Your task to perform on an android device: Add usb-a to the cart on bestbuy Image 0: 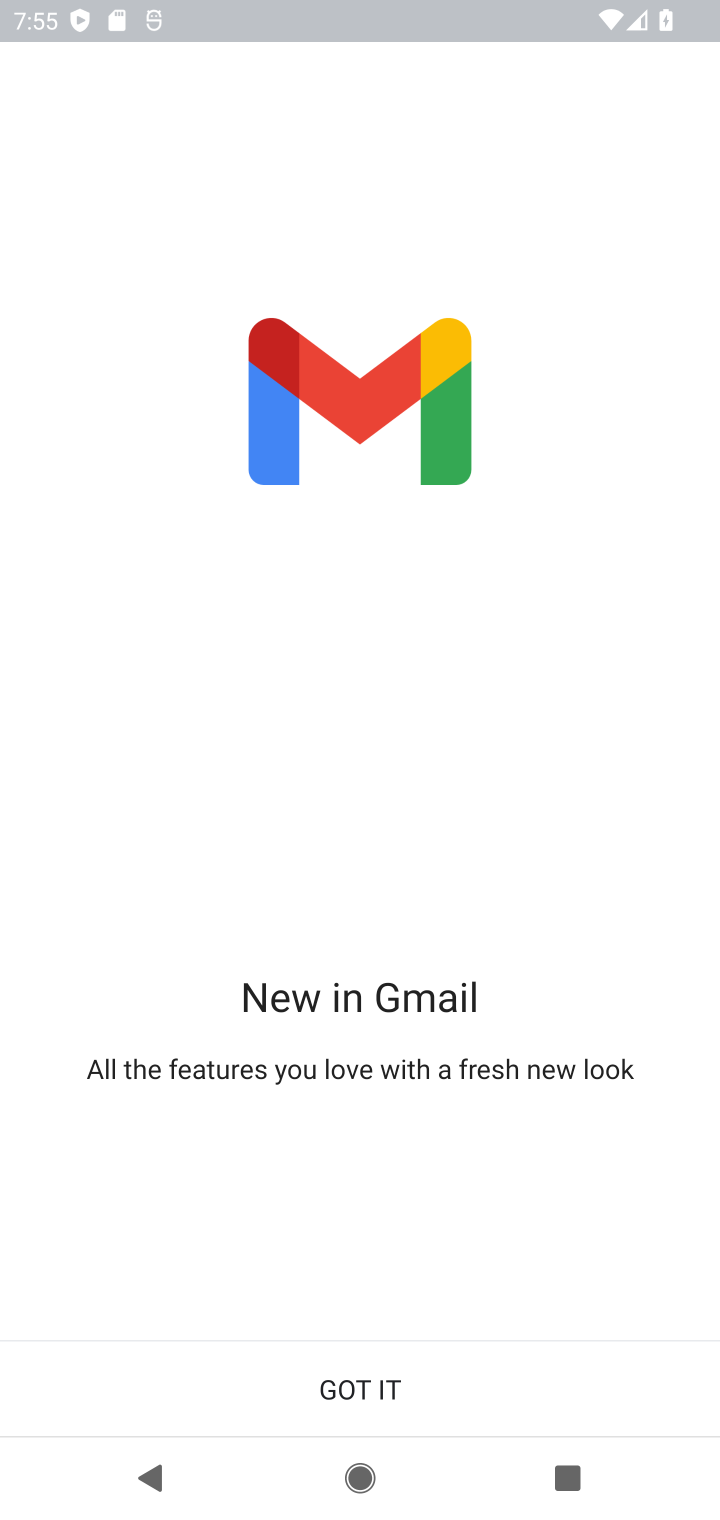
Step 0: press home button
Your task to perform on an android device: Add usb-a to the cart on bestbuy Image 1: 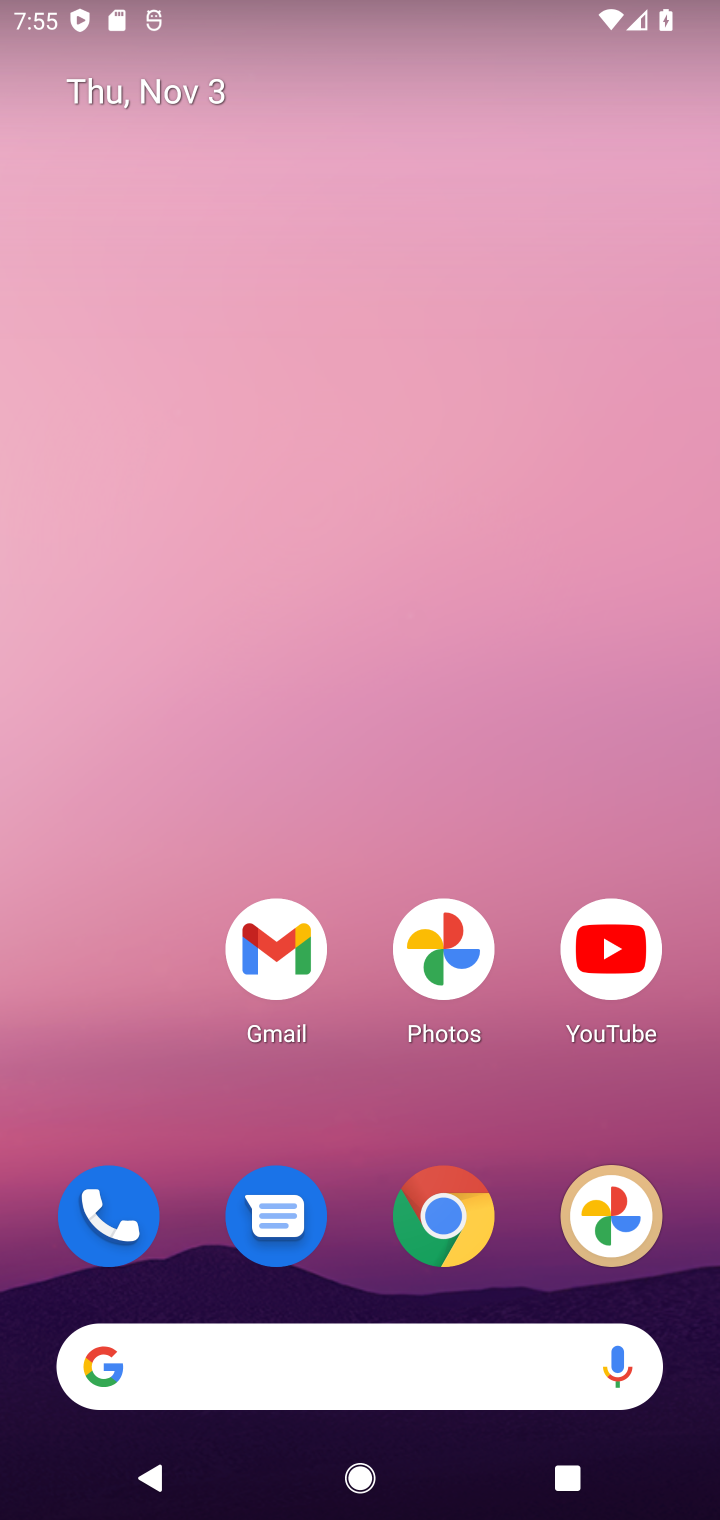
Step 1: click (444, 1253)
Your task to perform on an android device: Add usb-a to the cart on bestbuy Image 2: 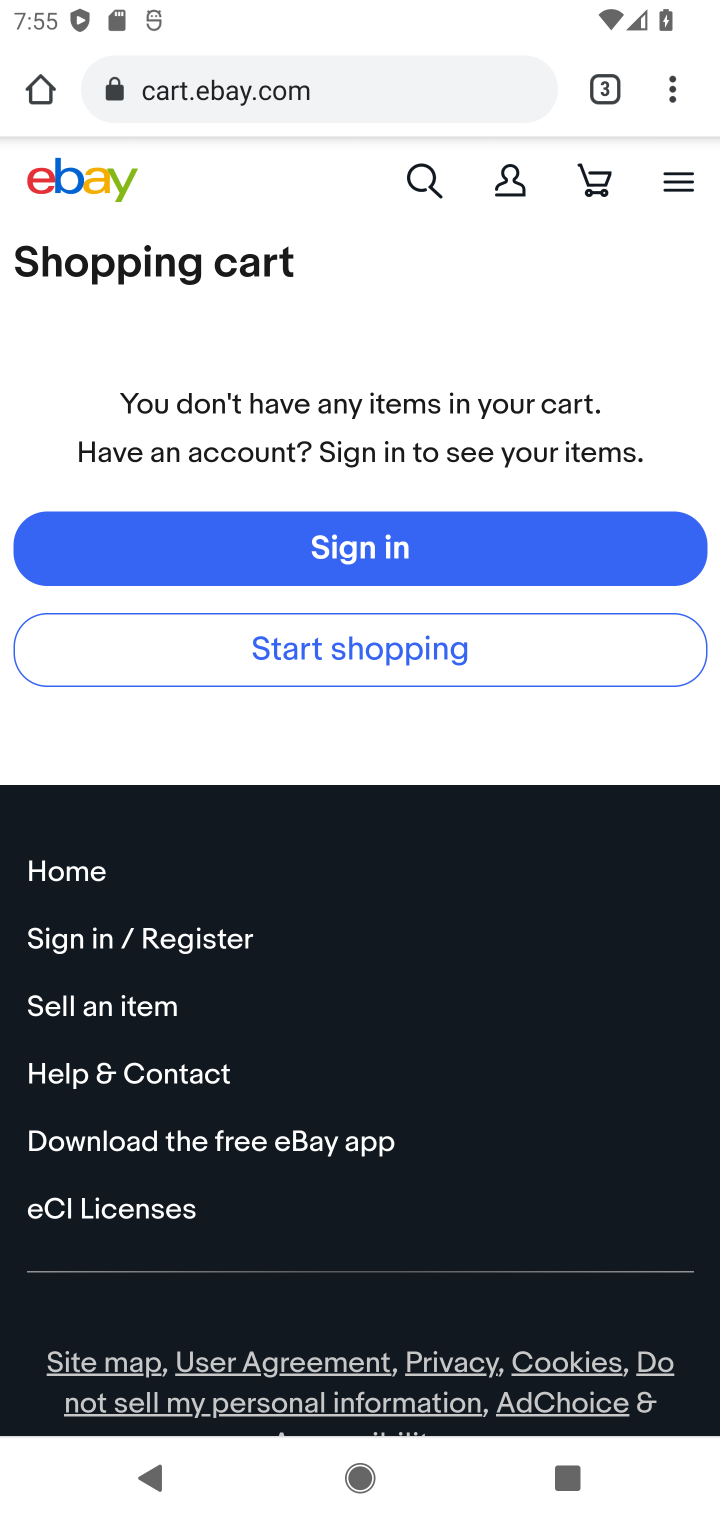
Step 2: click (604, 89)
Your task to perform on an android device: Add usb-a to the cart on bestbuy Image 3: 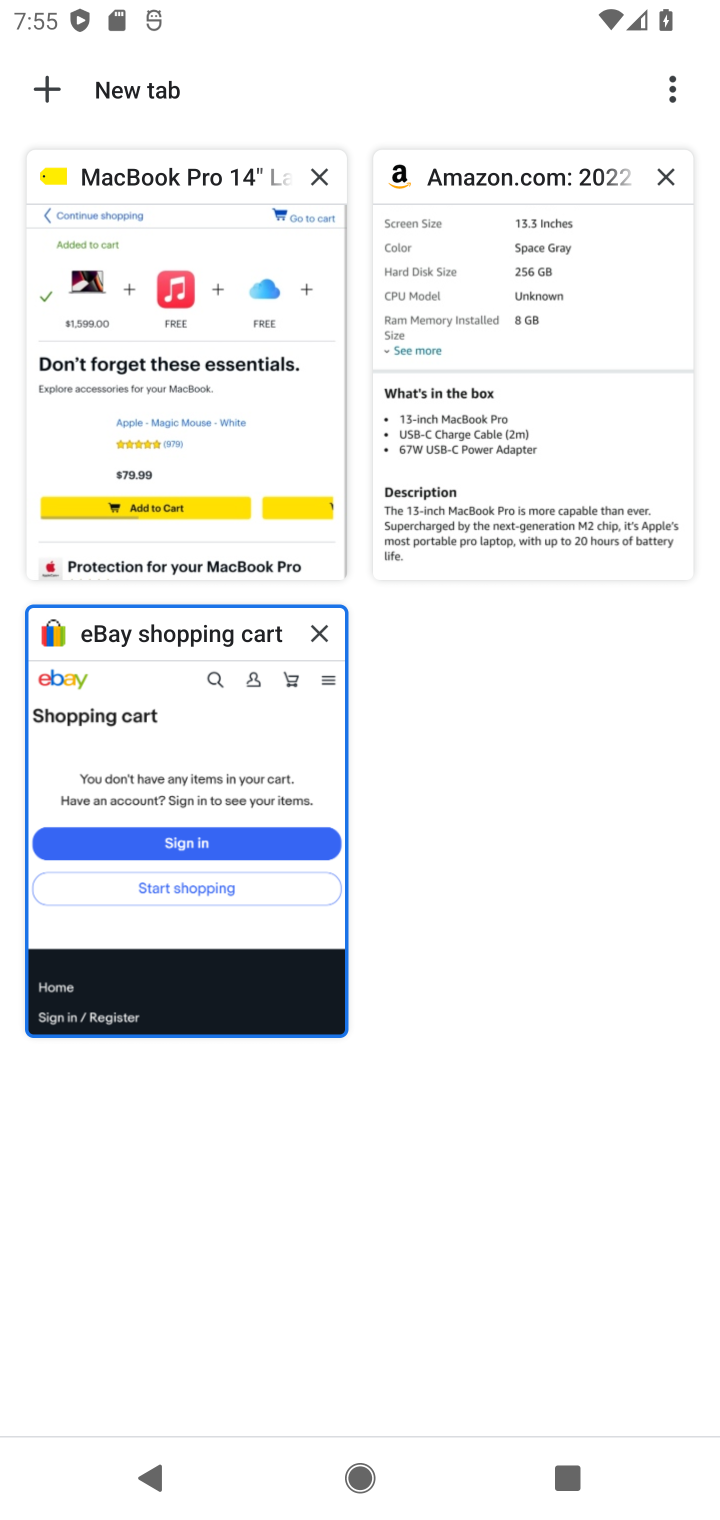
Step 3: click (265, 245)
Your task to perform on an android device: Add usb-a to the cart on bestbuy Image 4: 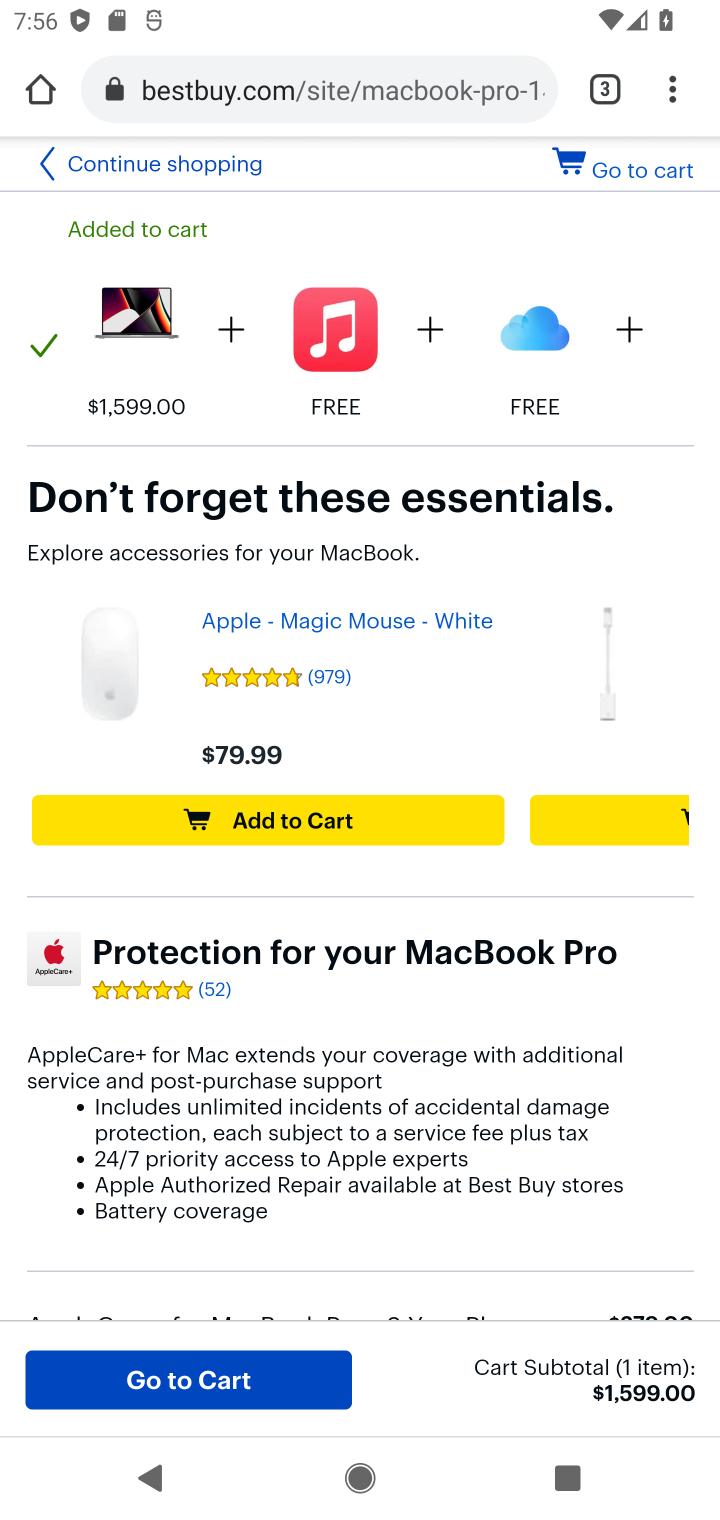
Step 4: click (43, 168)
Your task to perform on an android device: Add usb-a to the cart on bestbuy Image 5: 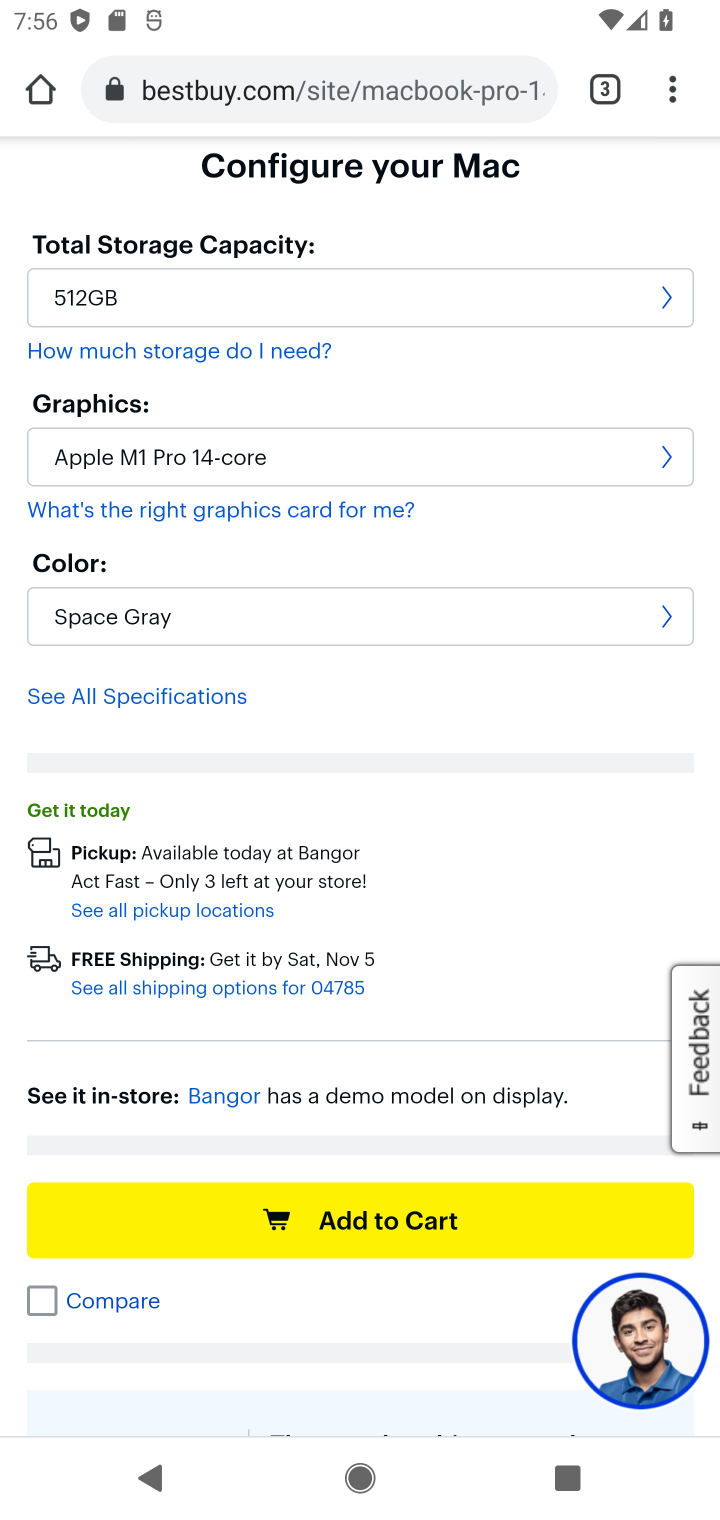
Step 5: drag from (365, 206) to (381, 1334)
Your task to perform on an android device: Add usb-a to the cart on bestbuy Image 6: 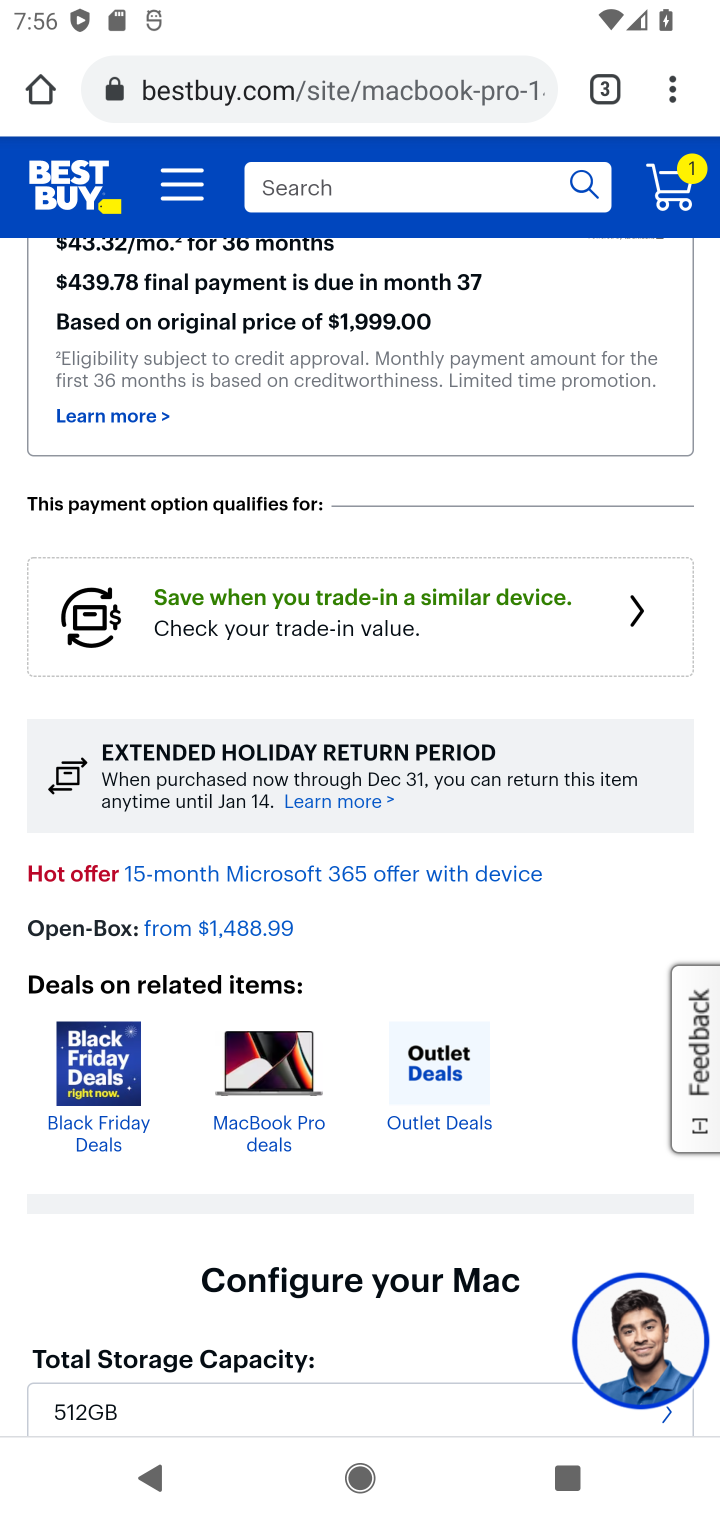
Step 6: click (371, 190)
Your task to perform on an android device: Add usb-a to the cart on bestbuy Image 7: 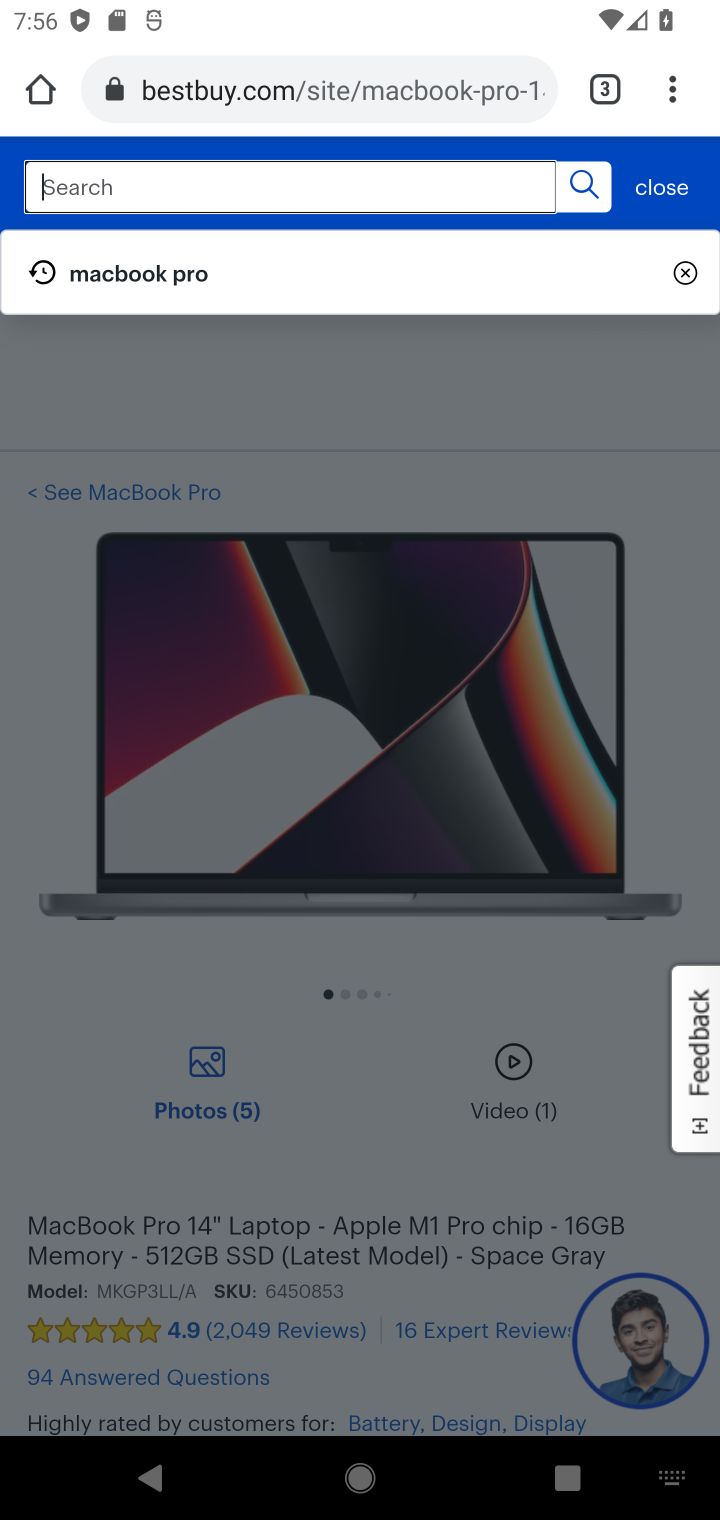
Step 7: type "usb-a"
Your task to perform on an android device: Add usb-a to the cart on bestbuy Image 8: 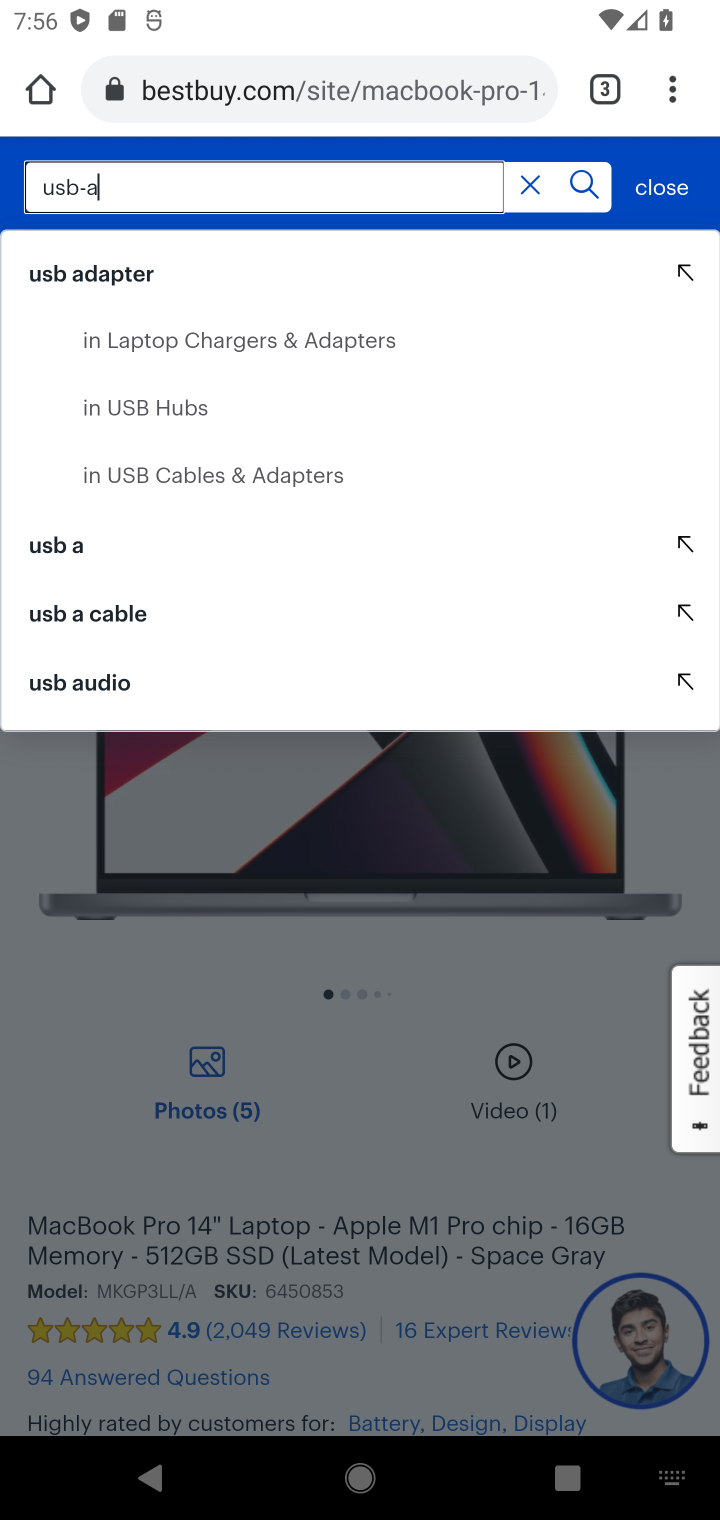
Step 8: click (585, 185)
Your task to perform on an android device: Add usb-a to the cart on bestbuy Image 9: 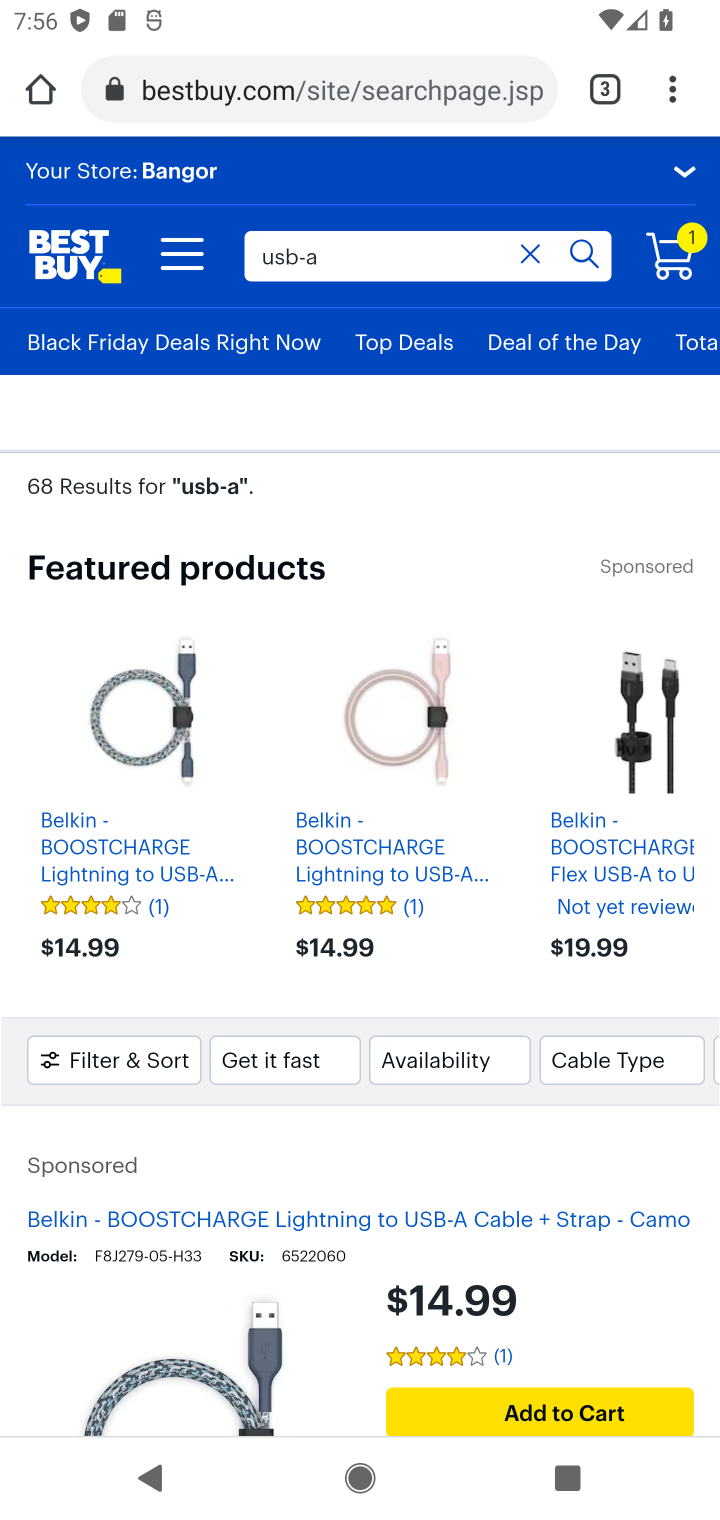
Step 9: drag from (214, 1392) to (134, 674)
Your task to perform on an android device: Add usb-a to the cart on bestbuy Image 10: 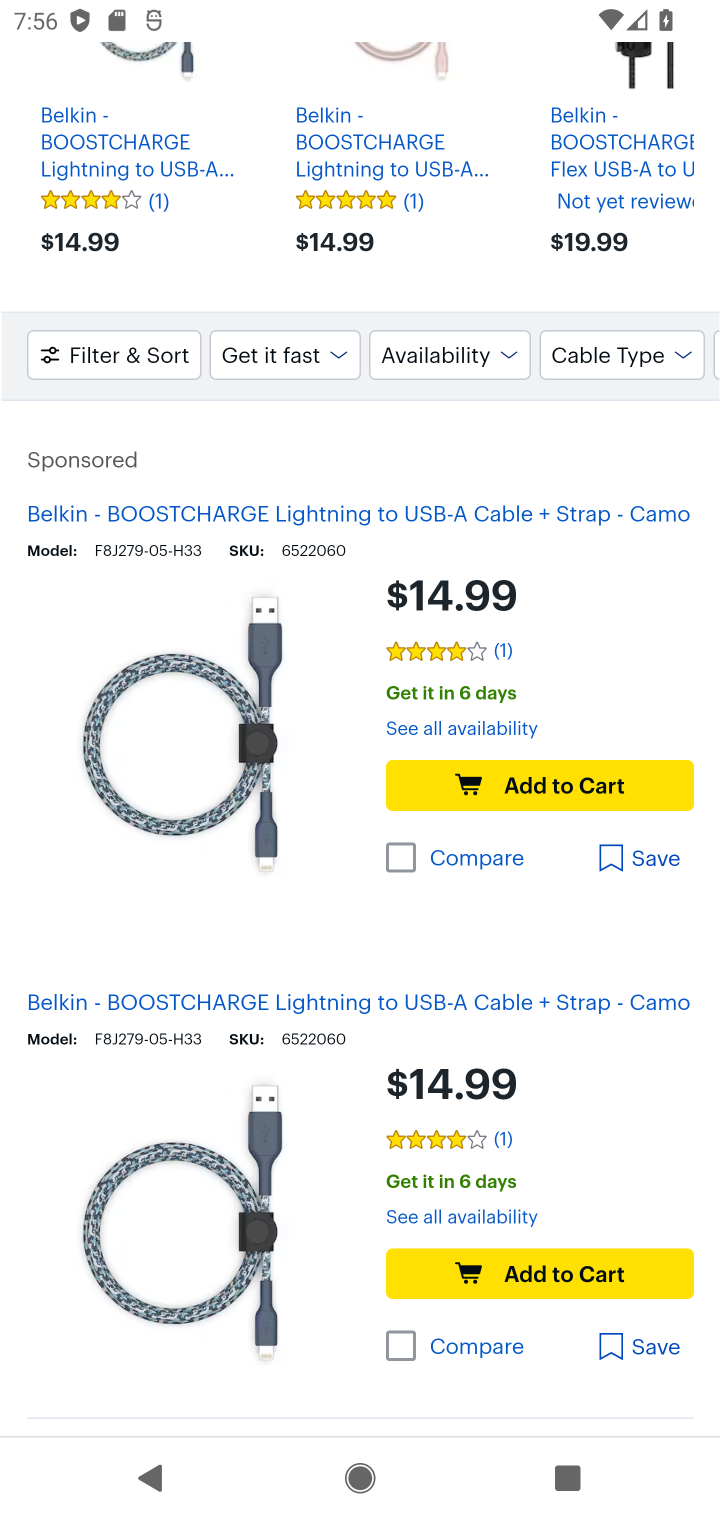
Step 10: click (265, 715)
Your task to perform on an android device: Add usb-a to the cart on bestbuy Image 11: 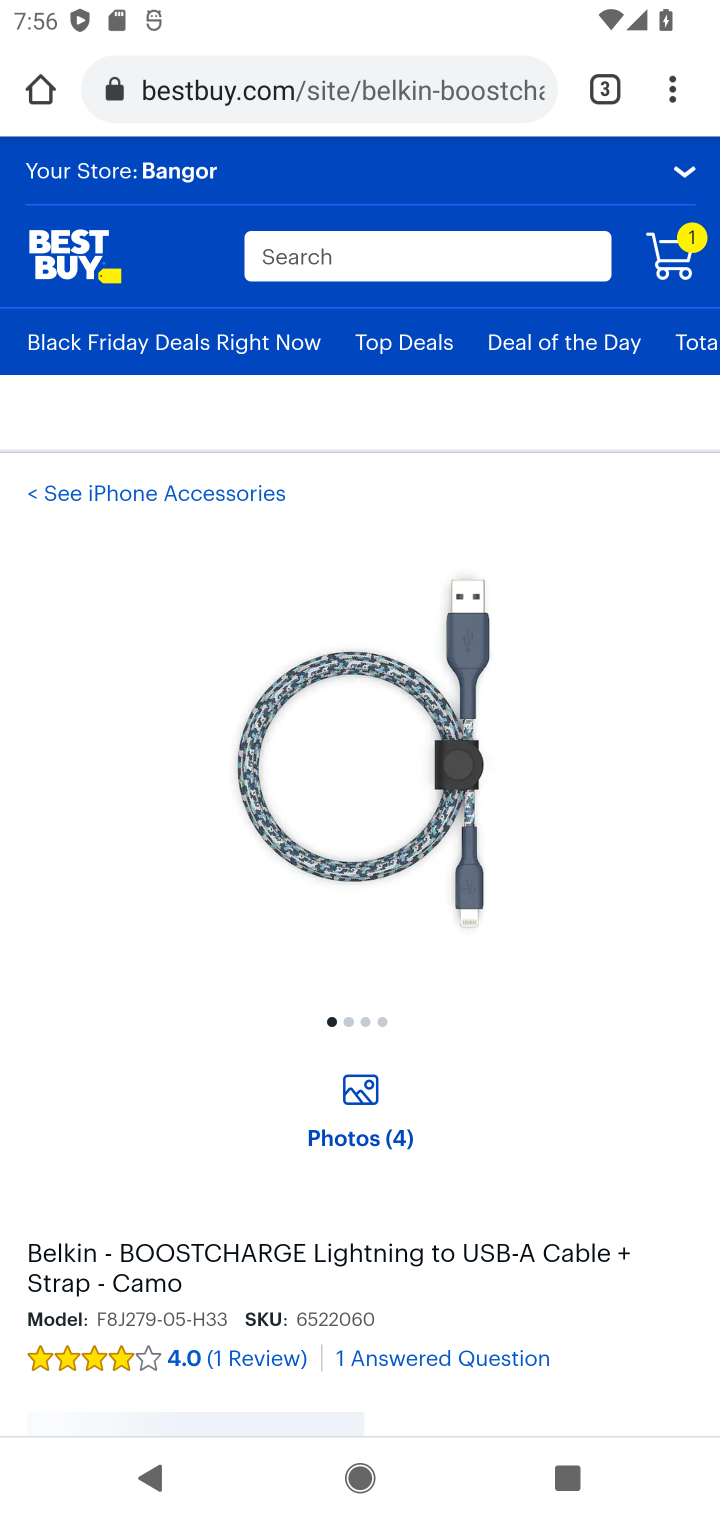
Step 11: drag from (402, 1321) to (234, 560)
Your task to perform on an android device: Add usb-a to the cart on bestbuy Image 12: 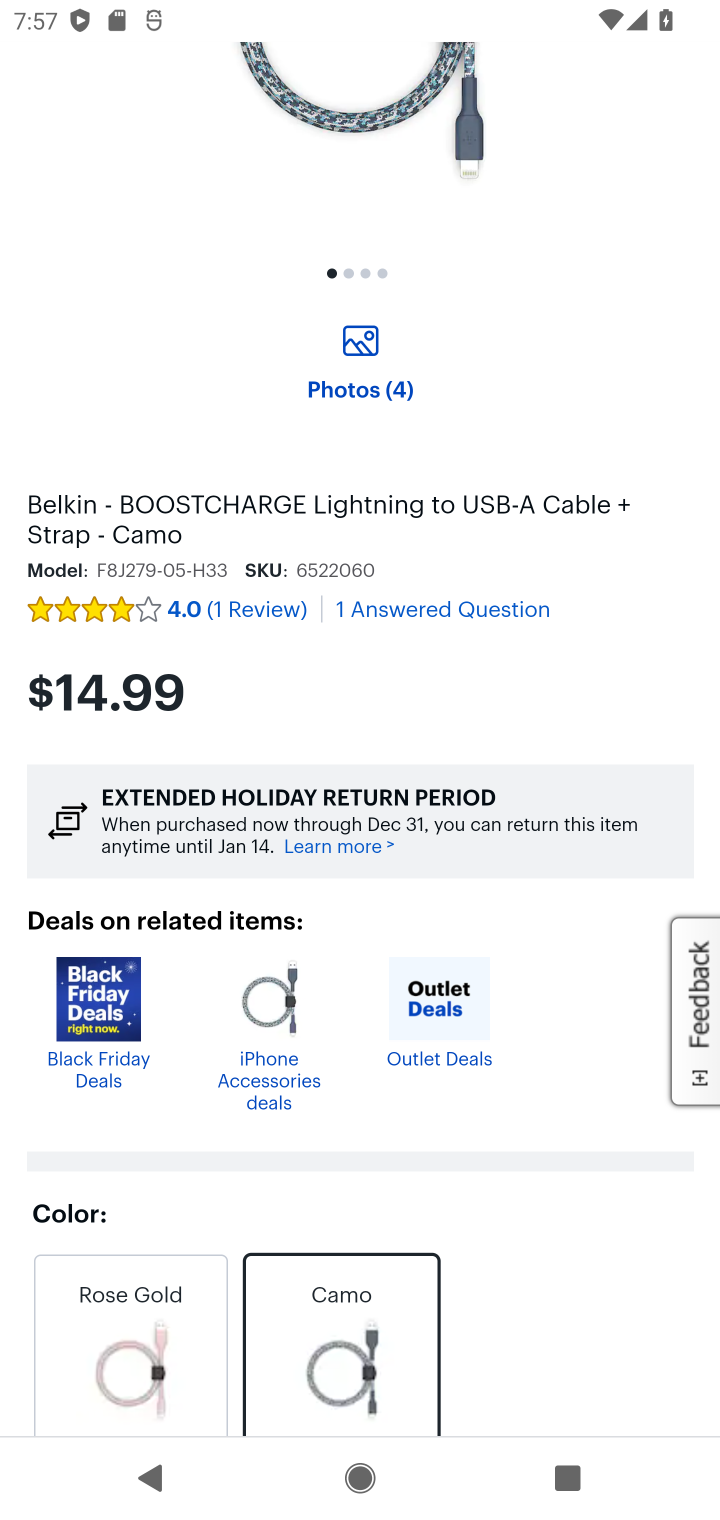
Step 12: drag from (553, 1334) to (370, 334)
Your task to perform on an android device: Add usb-a to the cart on bestbuy Image 13: 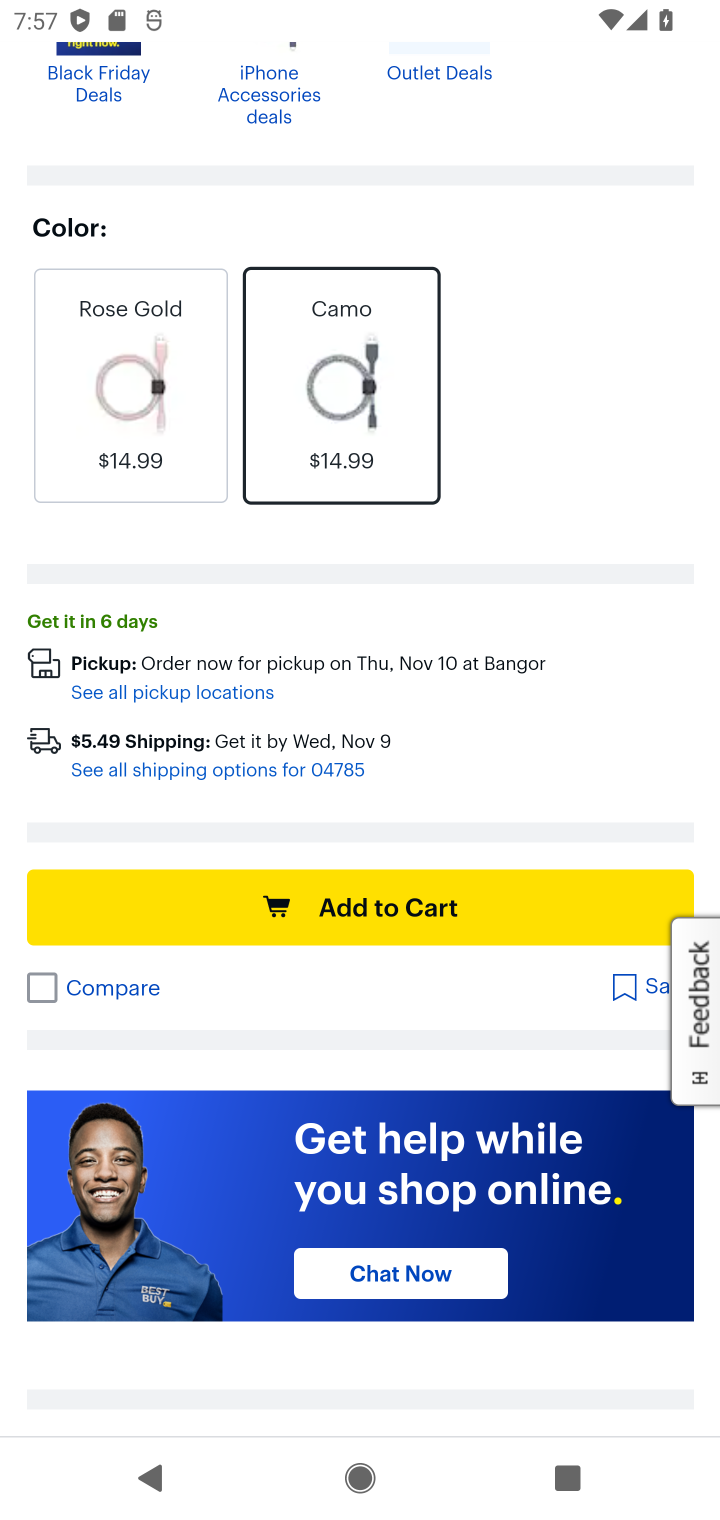
Step 13: click (322, 904)
Your task to perform on an android device: Add usb-a to the cart on bestbuy Image 14: 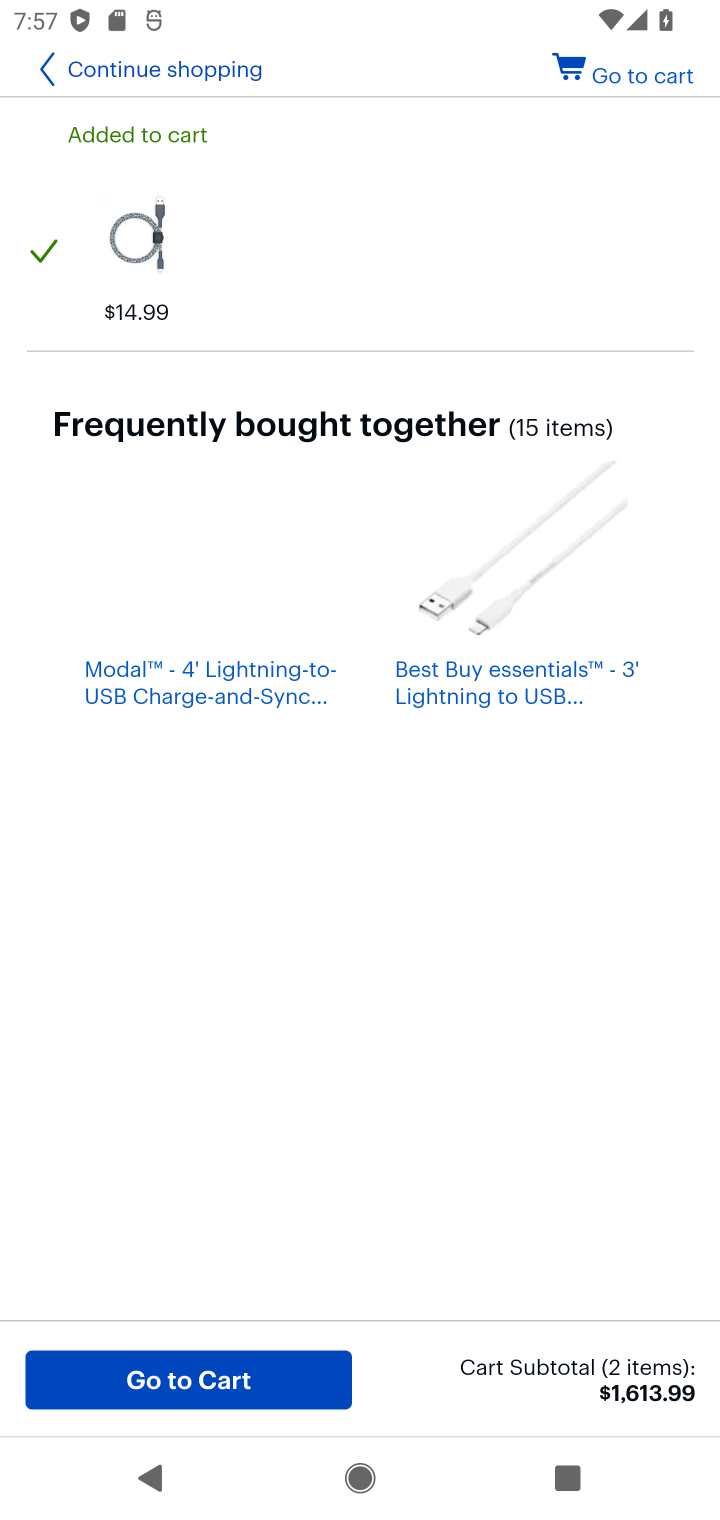
Step 14: task complete